Your task to perform on an android device: change your default location settings in chrome Image 0: 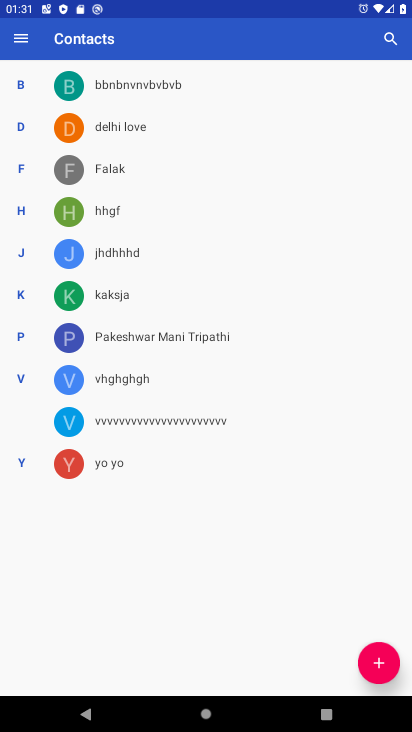
Step 0: press home button
Your task to perform on an android device: change your default location settings in chrome Image 1: 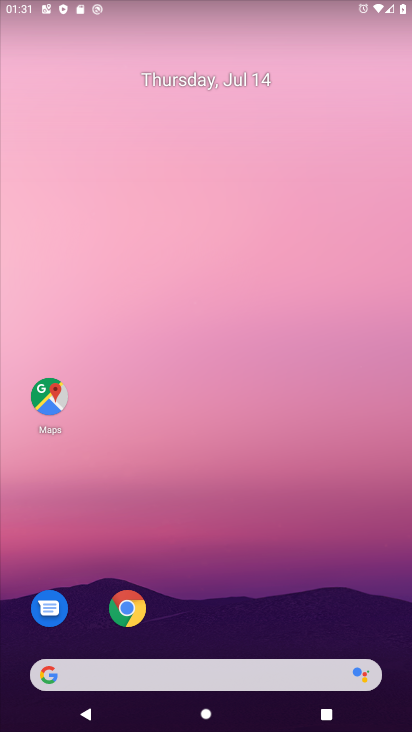
Step 1: drag from (273, 604) to (282, 97)
Your task to perform on an android device: change your default location settings in chrome Image 2: 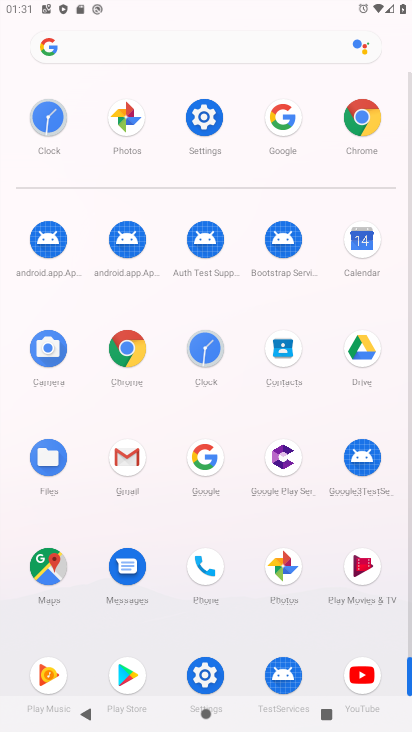
Step 2: click (359, 123)
Your task to perform on an android device: change your default location settings in chrome Image 3: 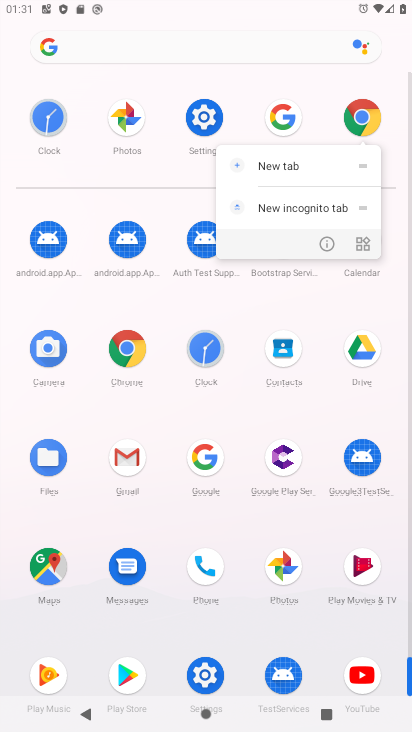
Step 3: click (333, 244)
Your task to perform on an android device: change your default location settings in chrome Image 4: 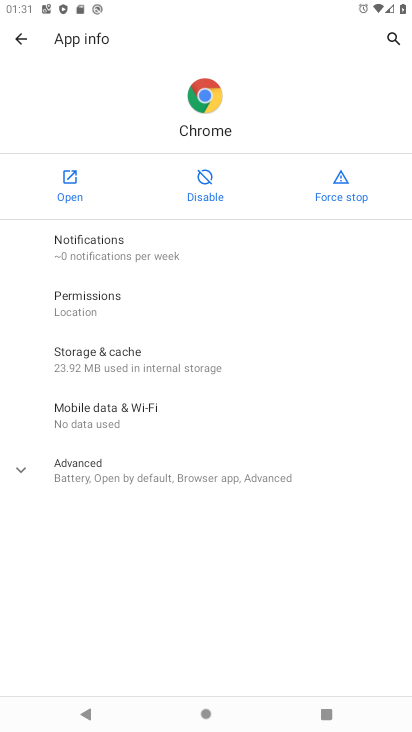
Step 4: click (61, 308)
Your task to perform on an android device: change your default location settings in chrome Image 5: 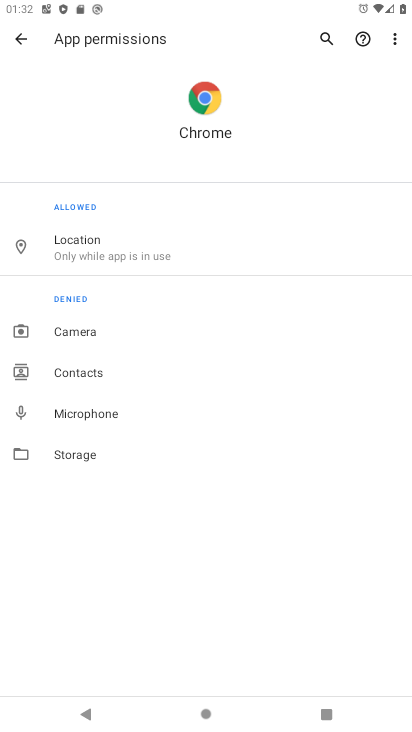
Step 5: click (103, 340)
Your task to perform on an android device: change your default location settings in chrome Image 6: 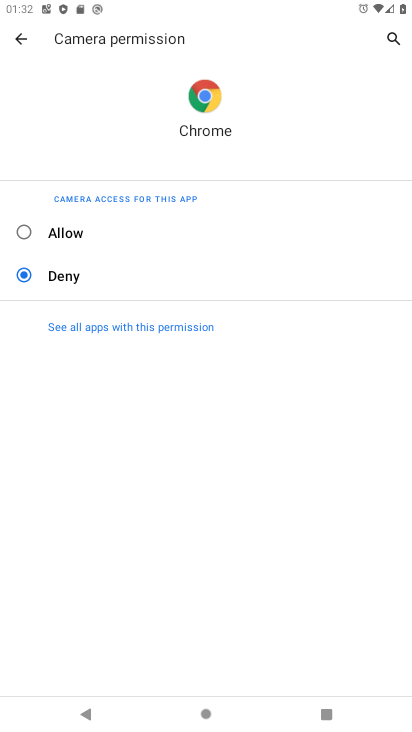
Step 6: click (90, 231)
Your task to perform on an android device: change your default location settings in chrome Image 7: 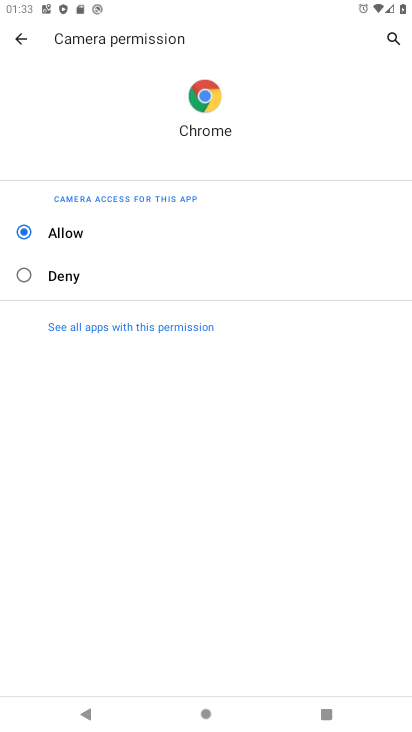
Step 7: click (22, 50)
Your task to perform on an android device: change your default location settings in chrome Image 8: 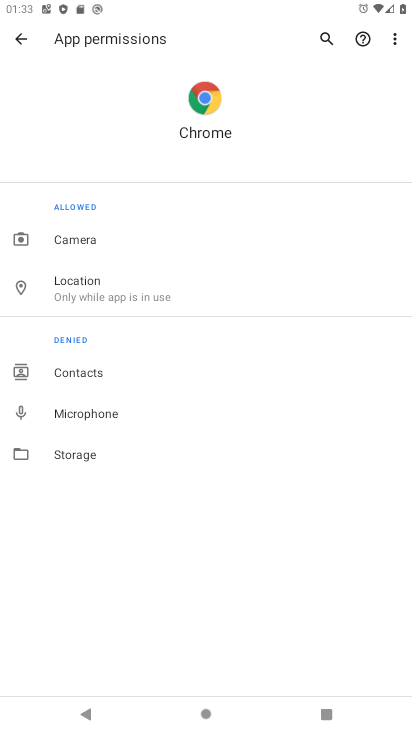
Step 8: click (90, 372)
Your task to perform on an android device: change your default location settings in chrome Image 9: 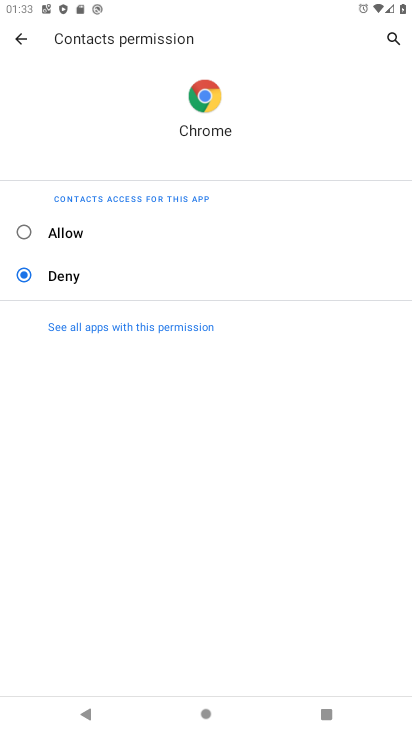
Step 9: click (79, 234)
Your task to perform on an android device: change your default location settings in chrome Image 10: 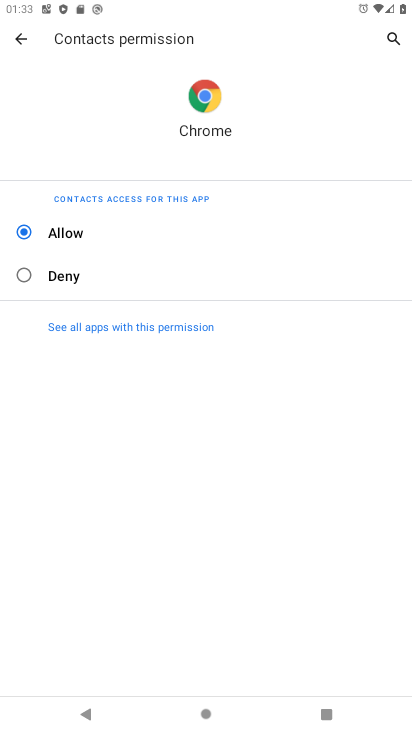
Step 10: click (17, 30)
Your task to perform on an android device: change your default location settings in chrome Image 11: 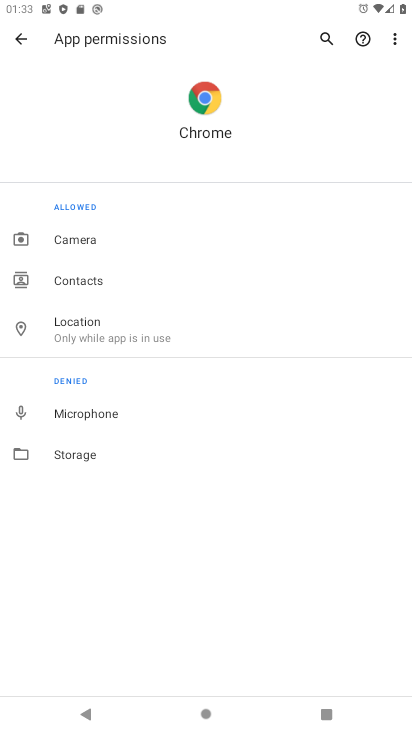
Step 11: click (89, 428)
Your task to perform on an android device: change your default location settings in chrome Image 12: 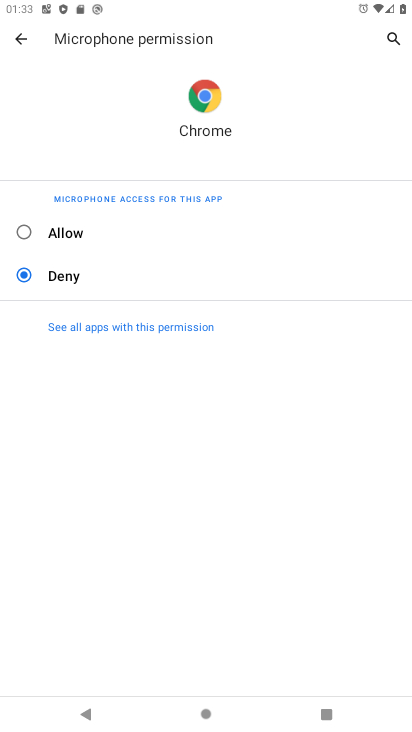
Step 12: click (31, 49)
Your task to perform on an android device: change your default location settings in chrome Image 13: 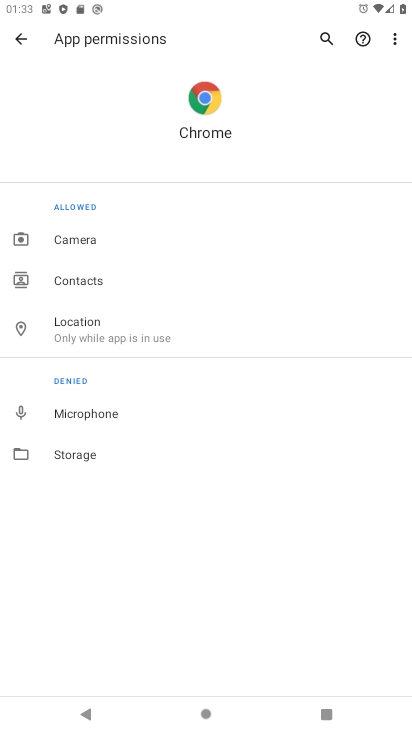
Step 13: click (76, 423)
Your task to perform on an android device: change your default location settings in chrome Image 14: 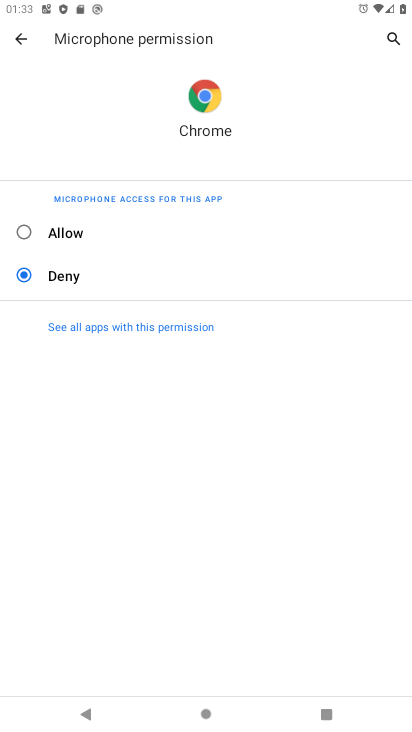
Step 14: click (96, 240)
Your task to perform on an android device: change your default location settings in chrome Image 15: 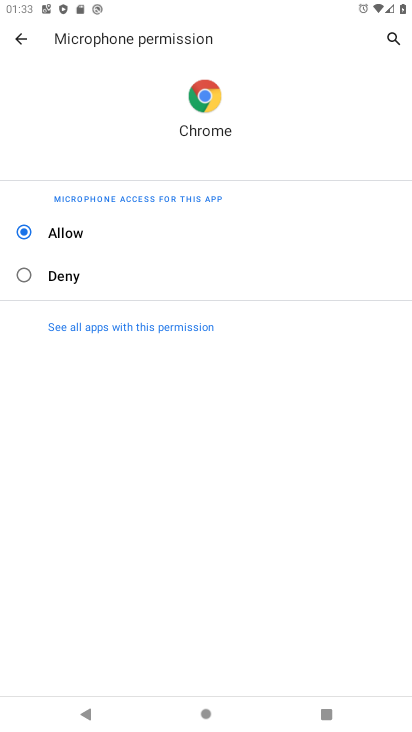
Step 15: click (7, 31)
Your task to perform on an android device: change your default location settings in chrome Image 16: 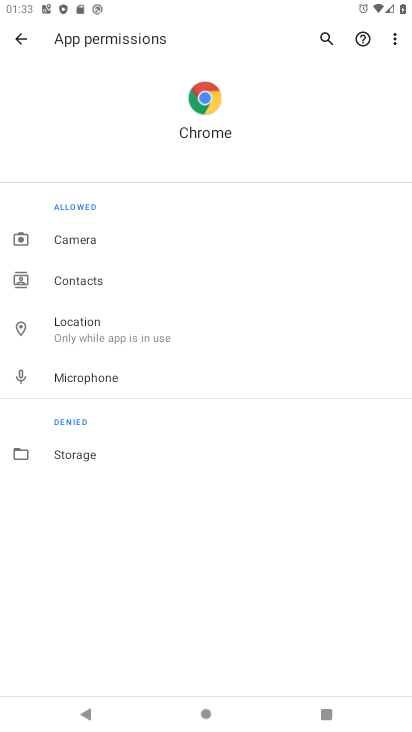
Step 16: click (78, 471)
Your task to perform on an android device: change your default location settings in chrome Image 17: 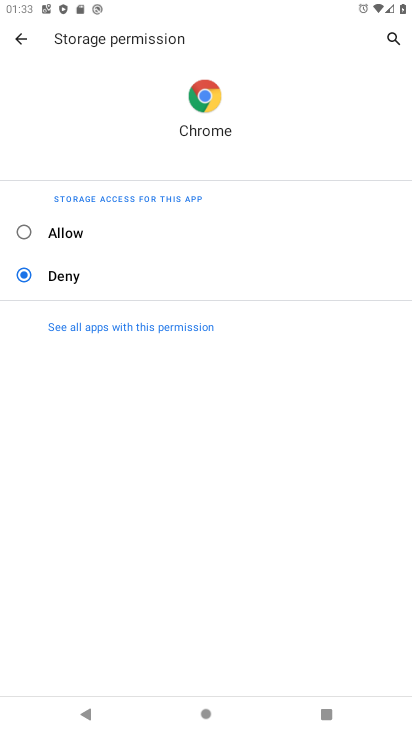
Step 17: click (83, 237)
Your task to perform on an android device: change your default location settings in chrome Image 18: 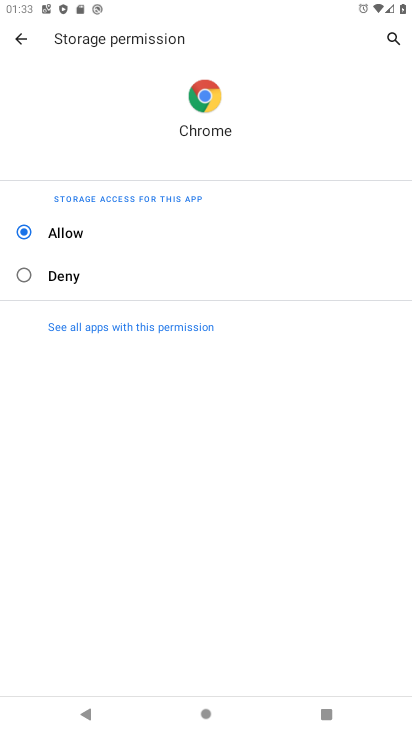
Step 18: click (36, 54)
Your task to perform on an android device: change your default location settings in chrome Image 19: 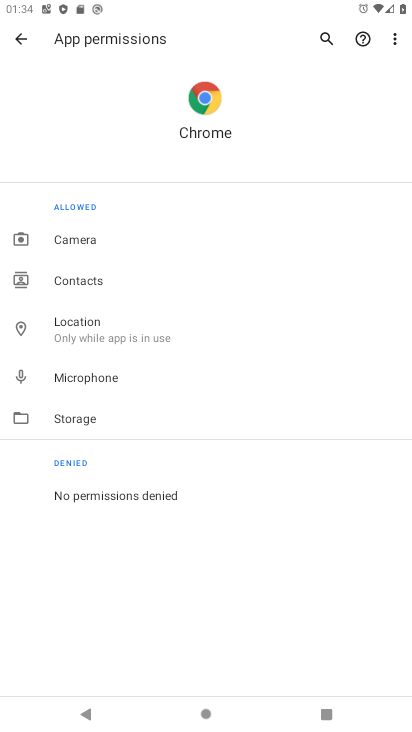
Step 19: task complete